Your task to perform on an android device: turn on priority inbox in the gmail app Image 0: 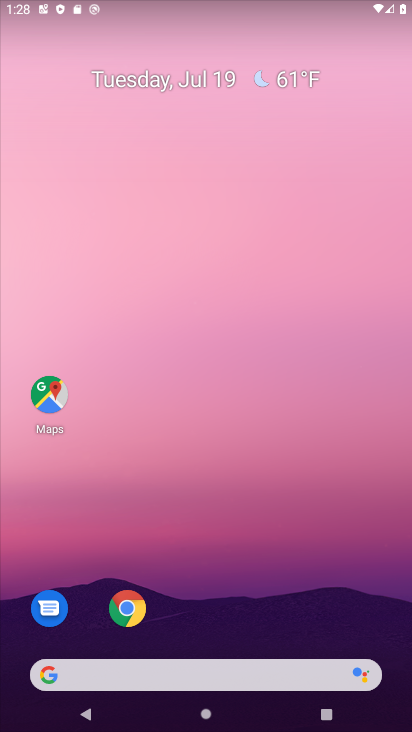
Step 0: drag from (308, 653) to (179, 3)
Your task to perform on an android device: turn on priority inbox in the gmail app Image 1: 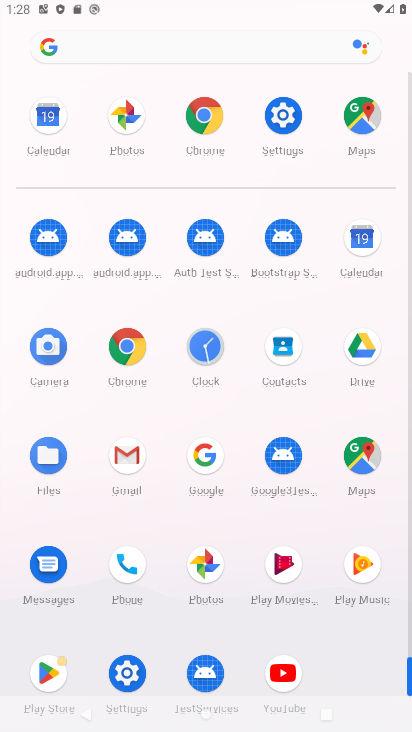
Step 1: click (118, 455)
Your task to perform on an android device: turn on priority inbox in the gmail app Image 2: 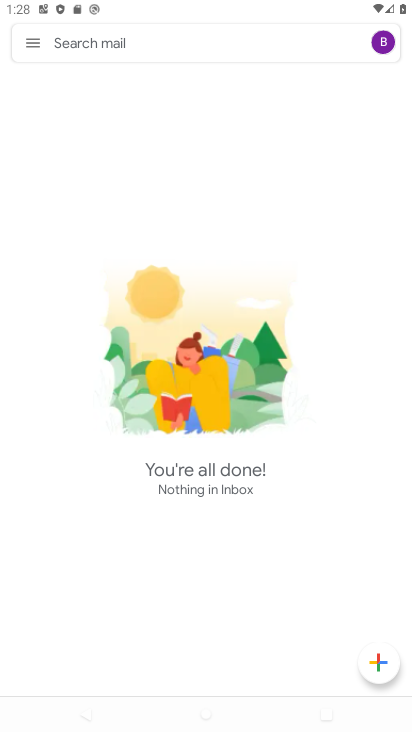
Step 2: click (27, 41)
Your task to perform on an android device: turn on priority inbox in the gmail app Image 3: 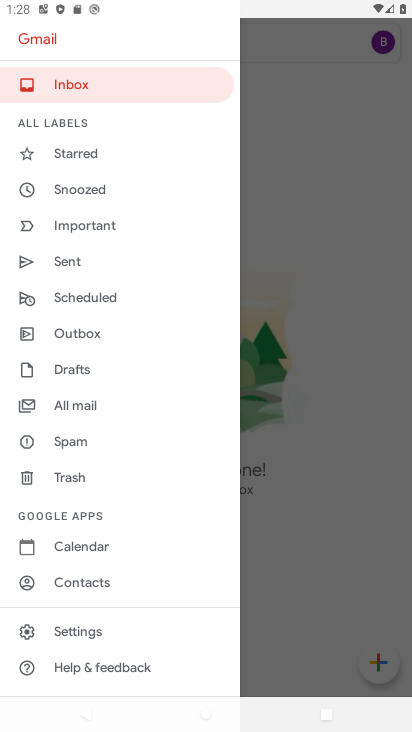
Step 3: click (85, 637)
Your task to perform on an android device: turn on priority inbox in the gmail app Image 4: 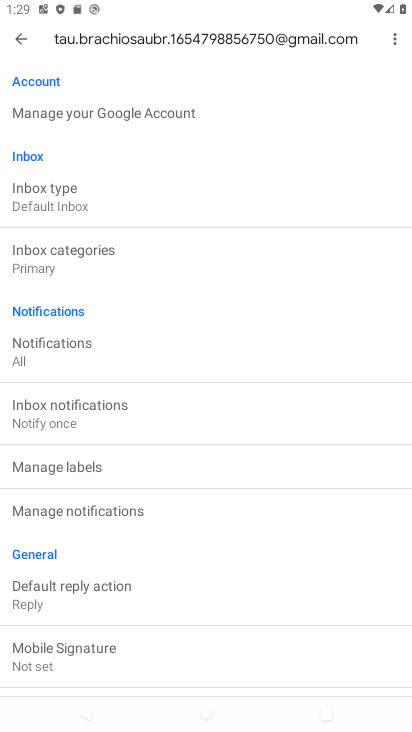
Step 4: click (45, 198)
Your task to perform on an android device: turn on priority inbox in the gmail app Image 5: 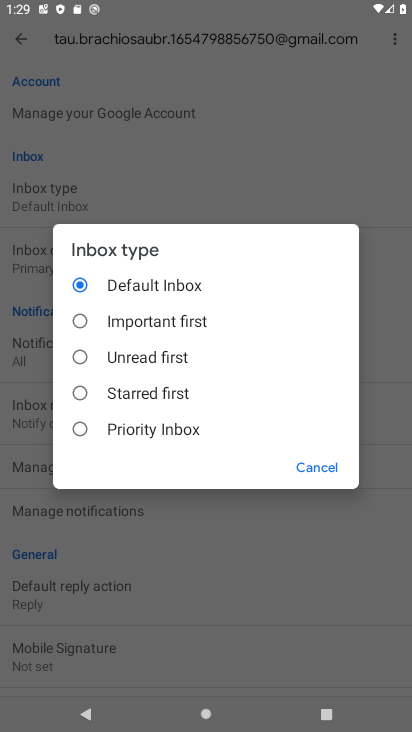
Step 5: click (124, 428)
Your task to perform on an android device: turn on priority inbox in the gmail app Image 6: 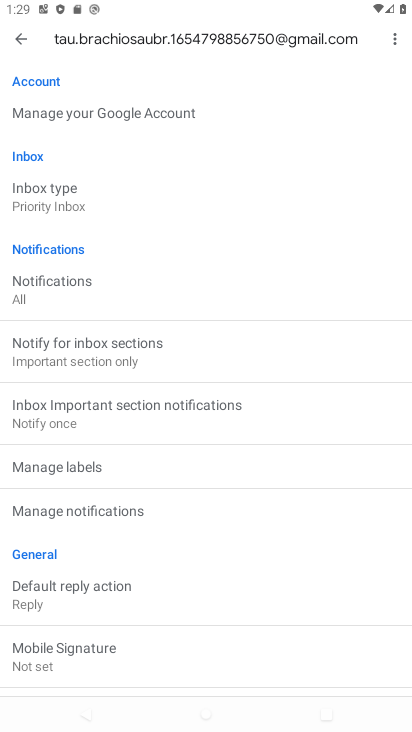
Step 6: task complete